Your task to perform on an android device: find which apps use the phone's location Image 0: 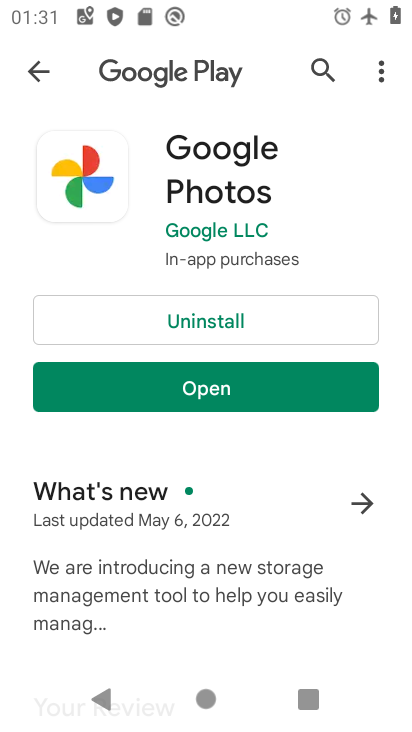
Step 0: press home button
Your task to perform on an android device: find which apps use the phone's location Image 1: 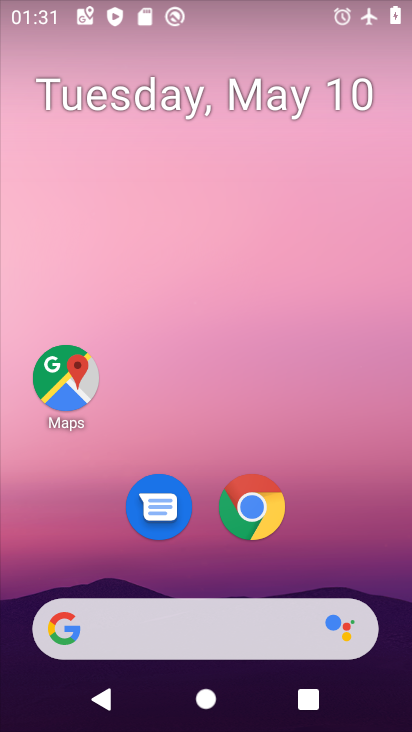
Step 1: drag from (183, 571) to (198, 177)
Your task to perform on an android device: find which apps use the phone's location Image 2: 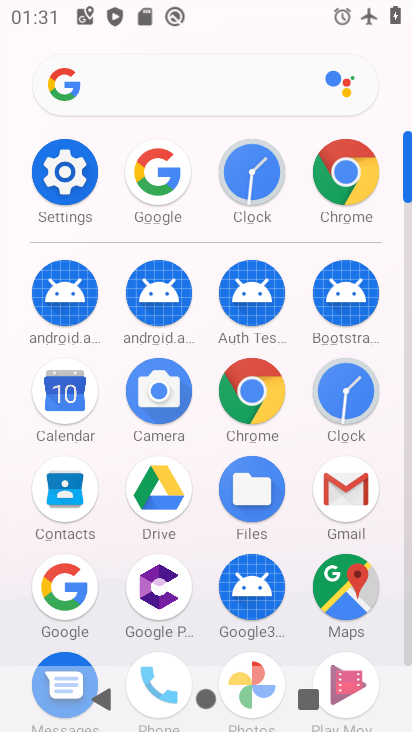
Step 2: click (72, 159)
Your task to perform on an android device: find which apps use the phone's location Image 3: 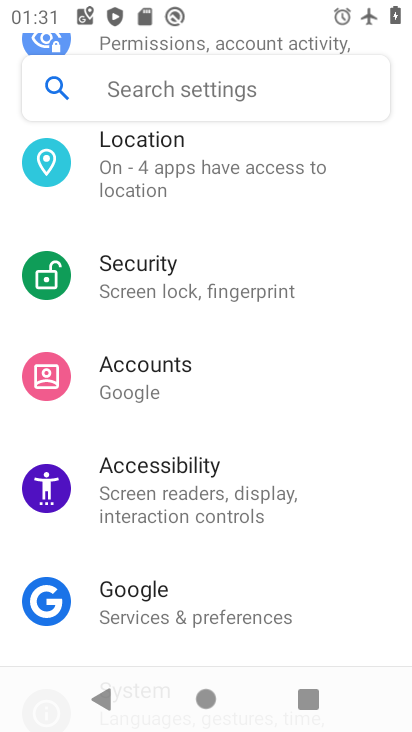
Step 3: drag from (173, 602) to (173, 139)
Your task to perform on an android device: find which apps use the phone's location Image 4: 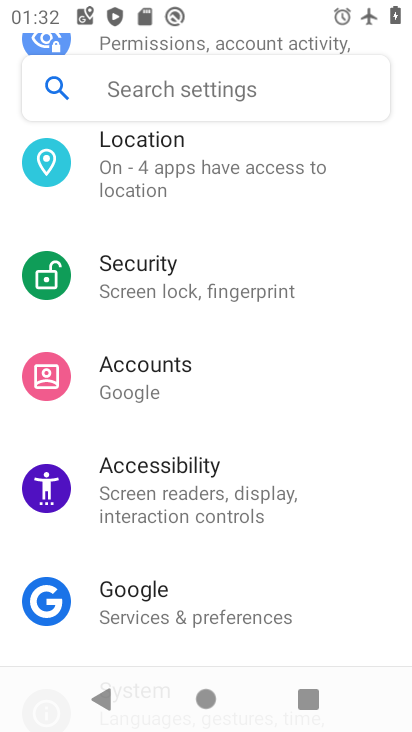
Step 4: click (176, 157)
Your task to perform on an android device: find which apps use the phone's location Image 5: 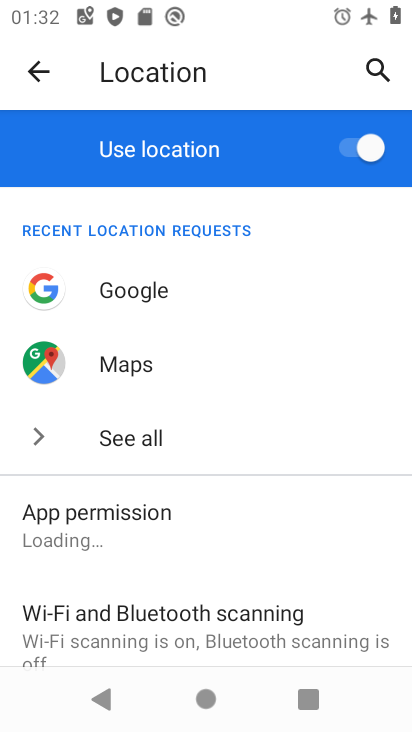
Step 5: click (133, 514)
Your task to perform on an android device: find which apps use the phone's location Image 6: 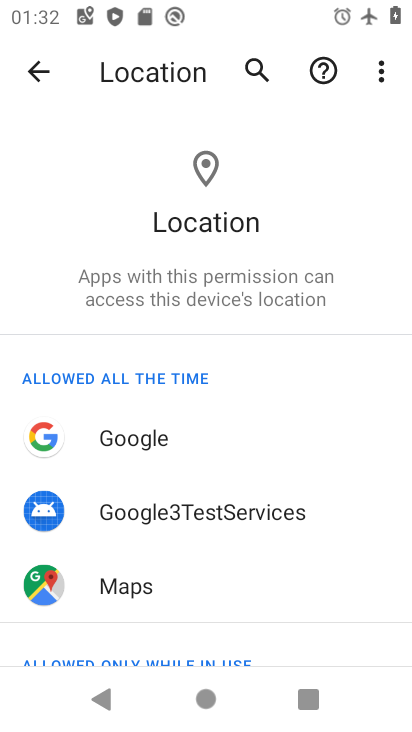
Step 6: task complete